Your task to perform on an android device: Clear the shopping cart on amazon.com. Add usb-c to the cart on amazon.com, then select checkout. Image 0: 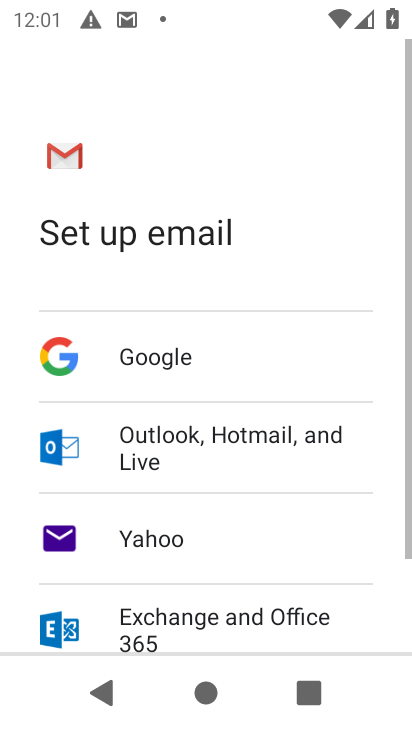
Step 0: press home button
Your task to perform on an android device: Clear the shopping cart on amazon.com. Add usb-c to the cart on amazon.com, then select checkout. Image 1: 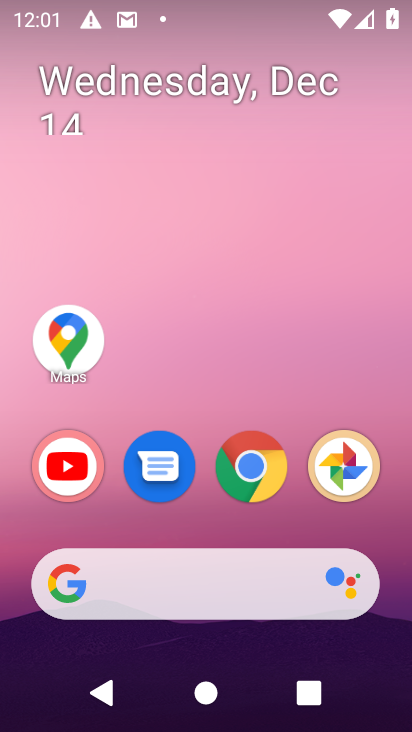
Step 1: drag from (165, 216) to (152, 43)
Your task to perform on an android device: Clear the shopping cart on amazon.com. Add usb-c to the cart on amazon.com, then select checkout. Image 2: 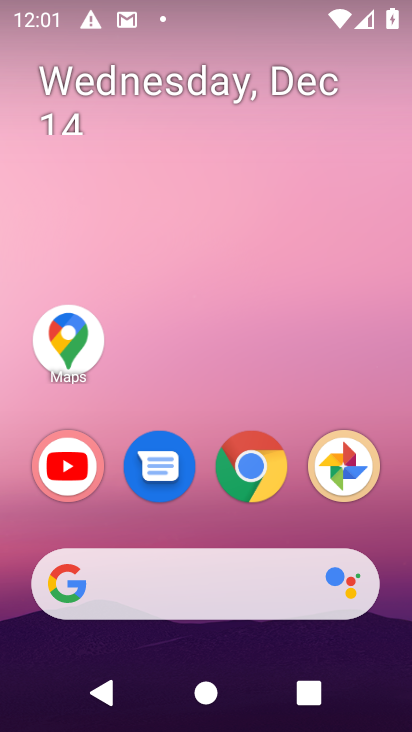
Step 2: drag from (201, 512) to (182, 218)
Your task to perform on an android device: Clear the shopping cart on amazon.com. Add usb-c to the cart on amazon.com, then select checkout. Image 3: 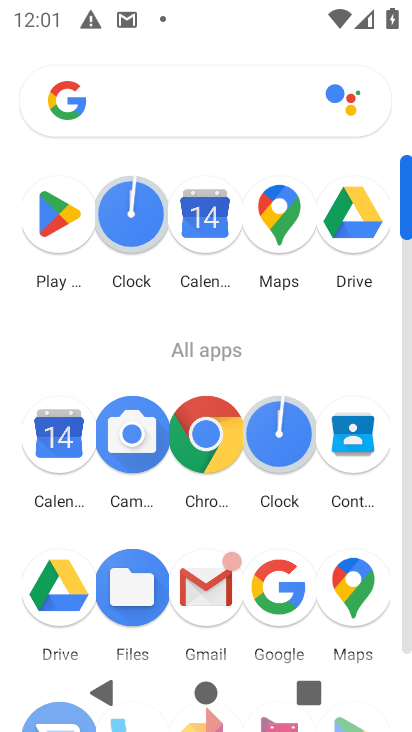
Step 3: click (285, 594)
Your task to perform on an android device: Clear the shopping cart on amazon.com. Add usb-c to the cart on amazon.com, then select checkout. Image 4: 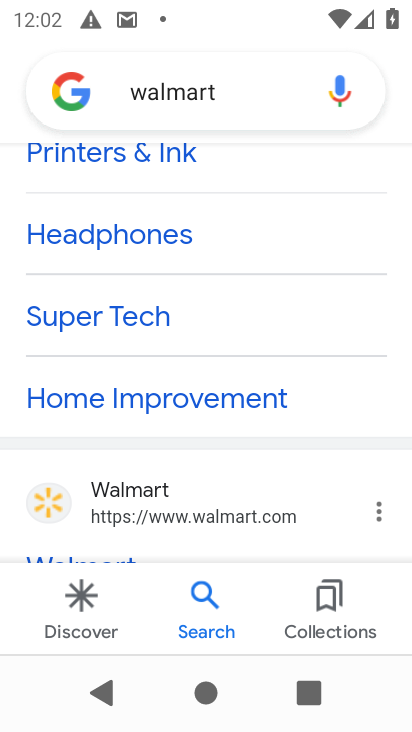
Step 4: click (239, 99)
Your task to perform on an android device: Clear the shopping cart on amazon.com. Add usb-c to the cart on amazon.com, then select checkout. Image 5: 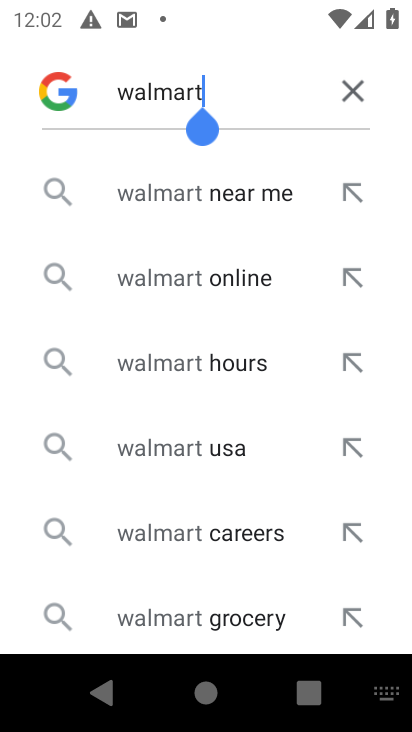
Step 5: click (353, 87)
Your task to perform on an android device: Clear the shopping cart on amazon.com. Add usb-c to the cart on amazon.com, then select checkout. Image 6: 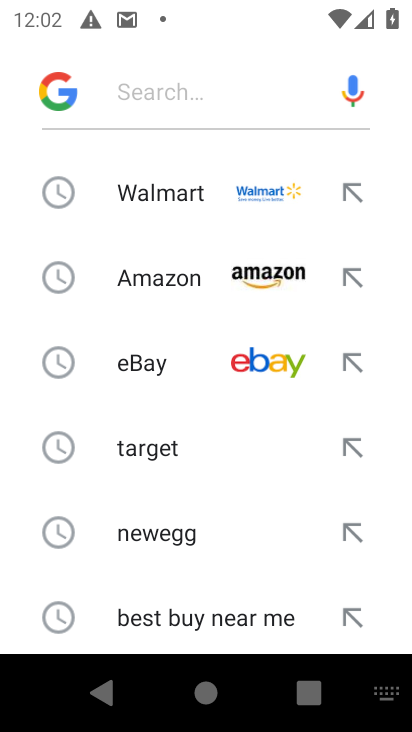
Step 6: click (216, 279)
Your task to perform on an android device: Clear the shopping cart on amazon.com. Add usb-c to the cart on amazon.com, then select checkout. Image 7: 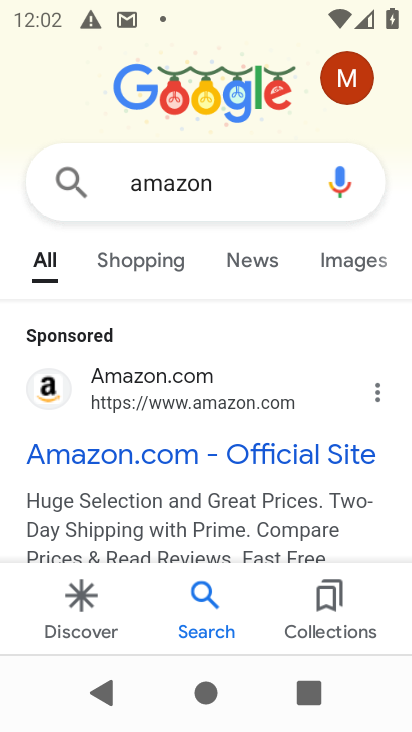
Step 7: click (141, 394)
Your task to perform on an android device: Clear the shopping cart on amazon.com. Add usb-c to the cart on amazon.com, then select checkout. Image 8: 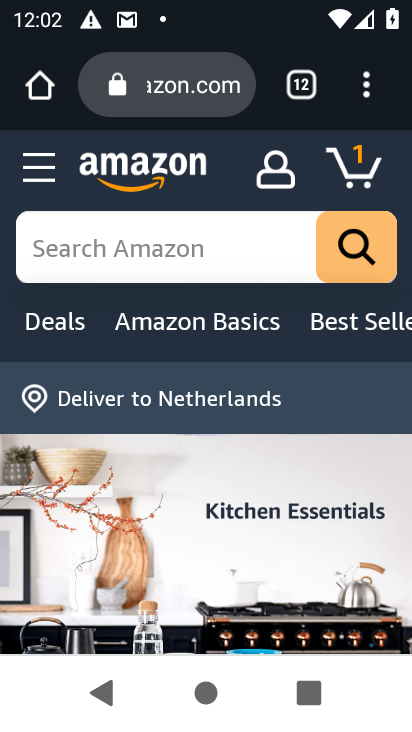
Step 8: click (273, 235)
Your task to perform on an android device: Clear the shopping cart on amazon.com. Add usb-c to the cart on amazon.com, then select checkout. Image 9: 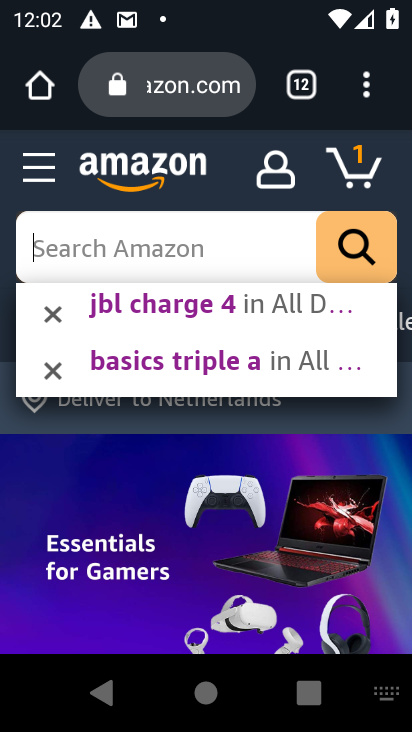
Step 9: type "usb-c "
Your task to perform on an android device: Clear the shopping cart on amazon.com. Add usb-c to the cart on amazon.com, then select checkout. Image 10: 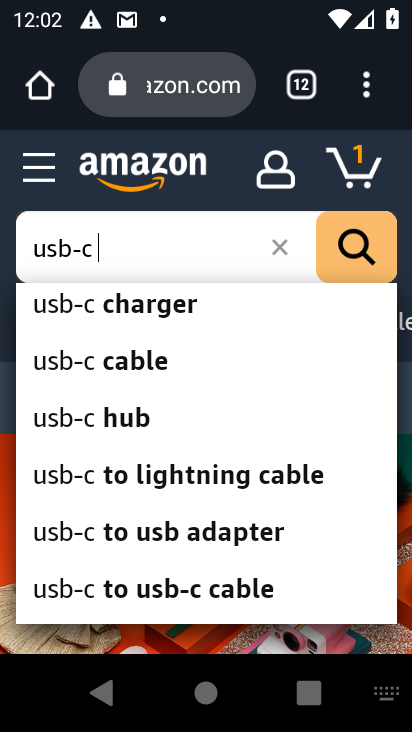
Step 10: click (105, 308)
Your task to perform on an android device: Clear the shopping cart on amazon.com. Add usb-c to the cart on amazon.com, then select checkout. Image 11: 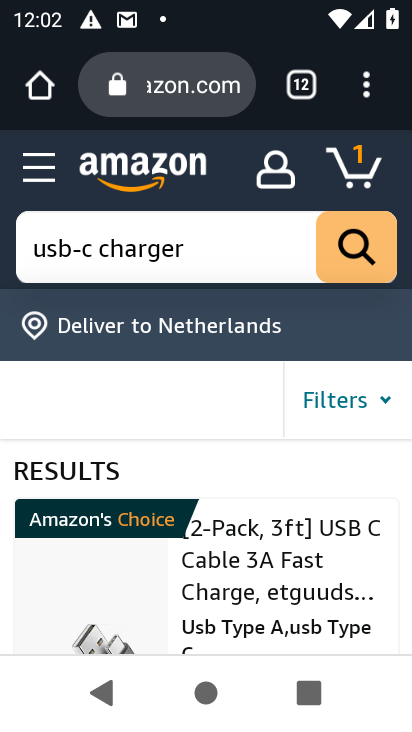
Step 11: drag from (287, 579) to (249, 315)
Your task to perform on an android device: Clear the shopping cart on amazon.com. Add usb-c to the cart on amazon.com, then select checkout. Image 12: 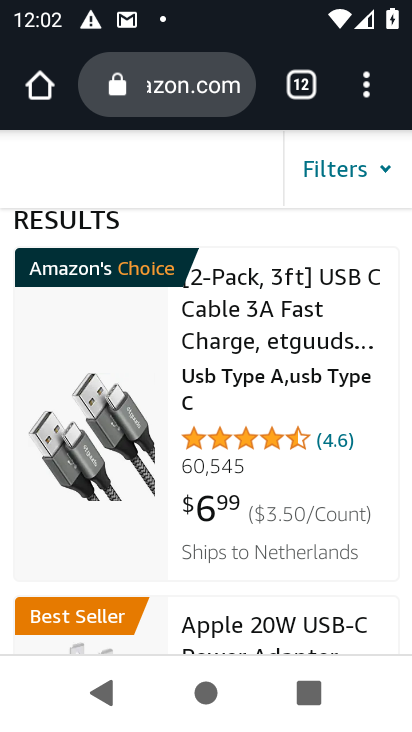
Step 12: click (223, 387)
Your task to perform on an android device: Clear the shopping cart on amazon.com. Add usb-c to the cart on amazon.com, then select checkout. Image 13: 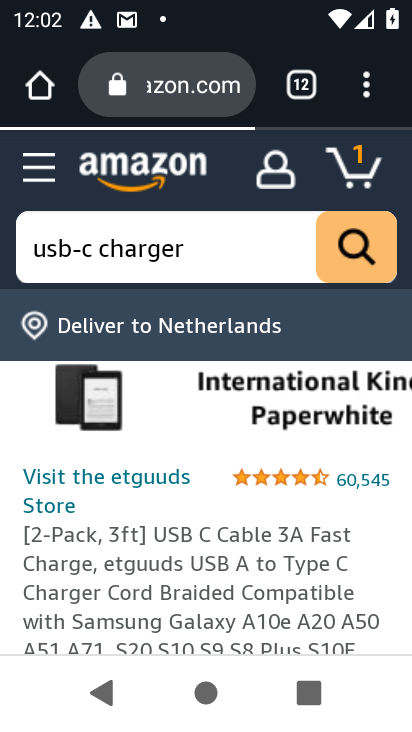
Step 13: drag from (210, 570) to (217, 417)
Your task to perform on an android device: Clear the shopping cart on amazon.com. Add usb-c to the cart on amazon.com, then select checkout. Image 14: 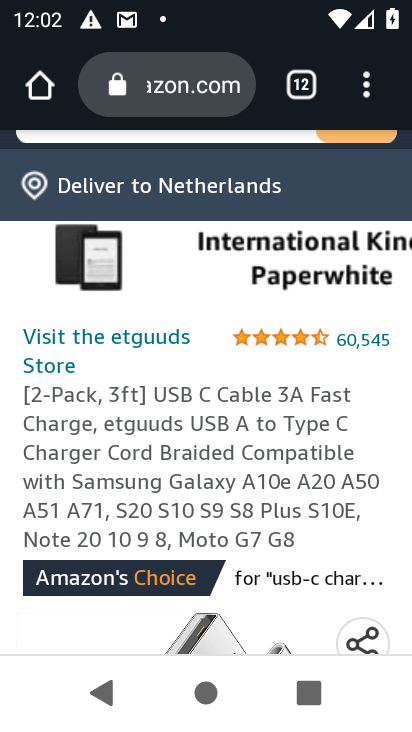
Step 14: click (250, 386)
Your task to perform on an android device: Clear the shopping cart on amazon.com. Add usb-c to the cart on amazon.com, then select checkout. Image 15: 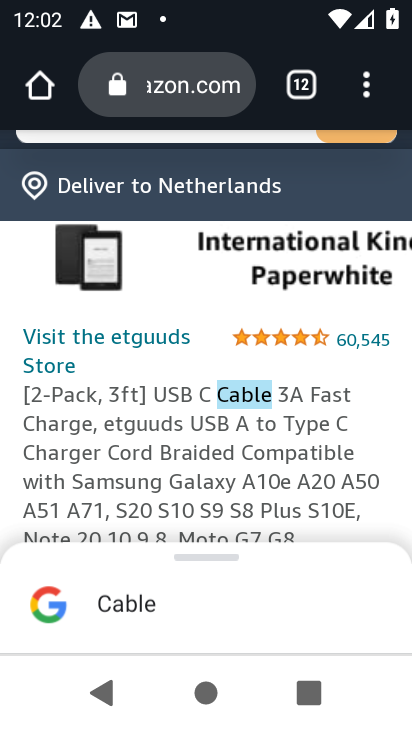
Step 15: click (217, 491)
Your task to perform on an android device: Clear the shopping cart on amazon.com. Add usb-c to the cart on amazon.com, then select checkout. Image 16: 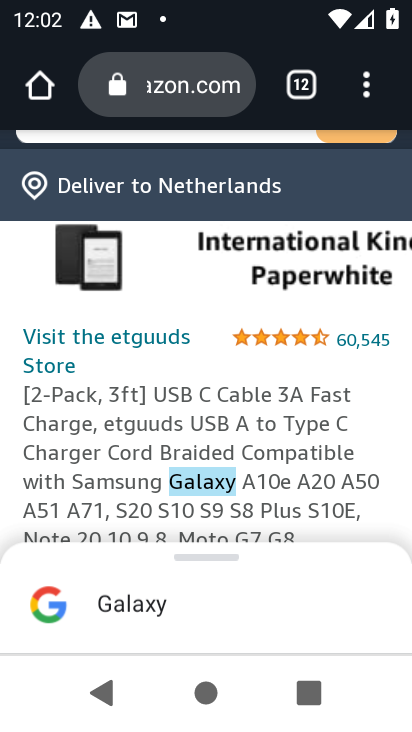
Step 16: drag from (137, 512) to (134, 333)
Your task to perform on an android device: Clear the shopping cart on amazon.com. Add usb-c to the cart on amazon.com, then select checkout. Image 17: 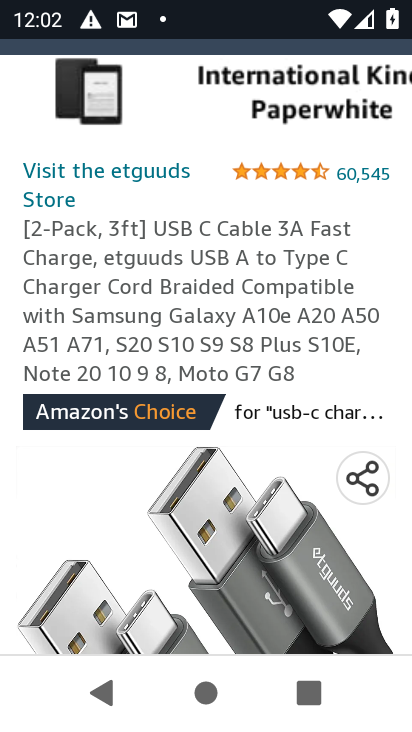
Step 17: drag from (189, 567) to (206, 296)
Your task to perform on an android device: Clear the shopping cart on amazon.com. Add usb-c to the cart on amazon.com, then select checkout. Image 18: 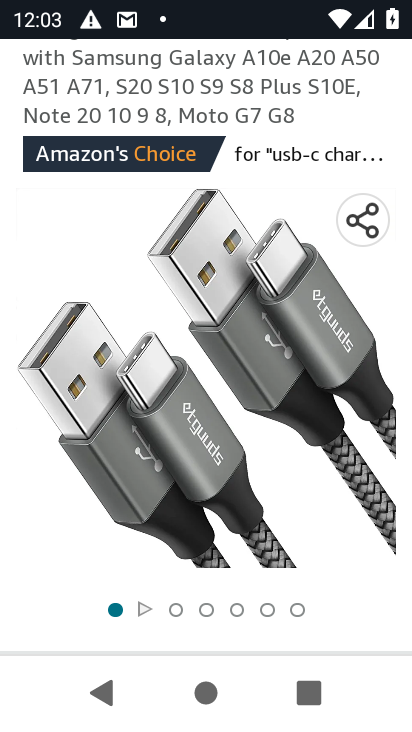
Step 18: drag from (165, 532) to (160, 285)
Your task to perform on an android device: Clear the shopping cart on amazon.com. Add usb-c to the cart on amazon.com, then select checkout. Image 19: 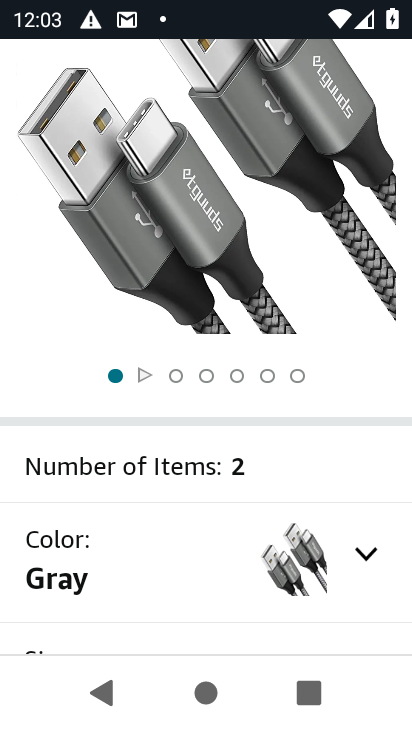
Step 19: drag from (161, 422) to (169, 273)
Your task to perform on an android device: Clear the shopping cart on amazon.com. Add usb-c to the cart on amazon.com, then select checkout. Image 20: 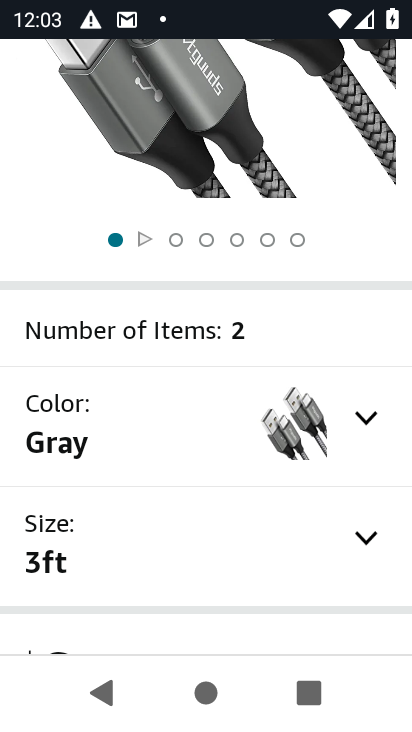
Step 20: drag from (169, 604) to (139, 379)
Your task to perform on an android device: Clear the shopping cart on amazon.com. Add usb-c to the cart on amazon.com, then select checkout. Image 21: 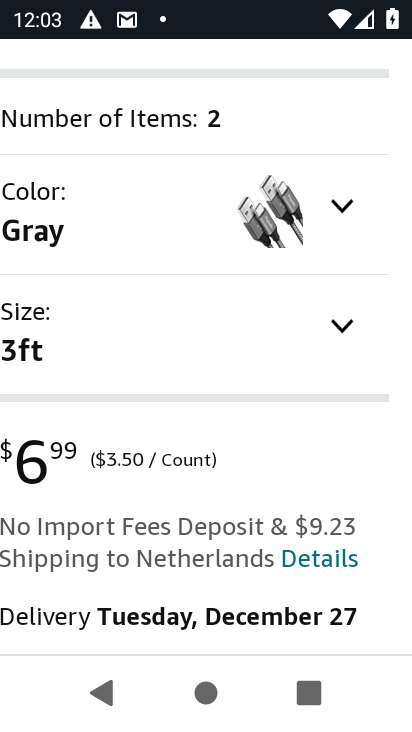
Step 21: drag from (149, 592) to (129, 339)
Your task to perform on an android device: Clear the shopping cart on amazon.com. Add usb-c to the cart on amazon.com, then select checkout. Image 22: 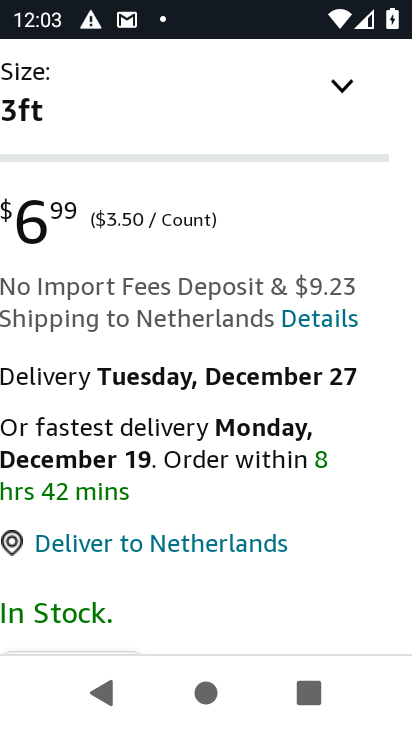
Step 22: drag from (129, 603) to (136, 355)
Your task to perform on an android device: Clear the shopping cart on amazon.com. Add usb-c to the cart on amazon.com, then select checkout. Image 23: 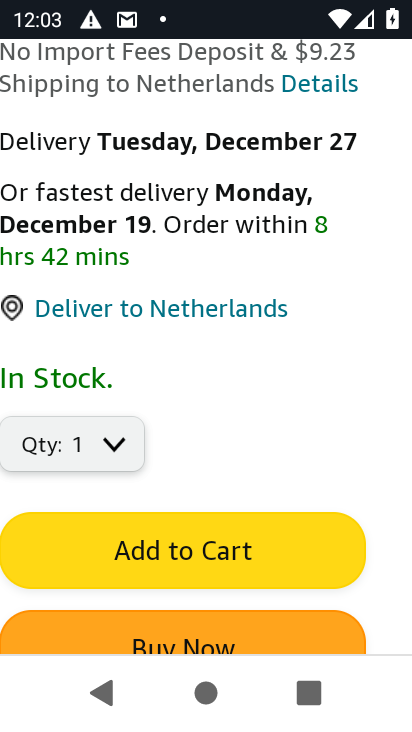
Step 23: click (164, 554)
Your task to perform on an android device: Clear the shopping cart on amazon.com. Add usb-c to the cart on amazon.com, then select checkout. Image 24: 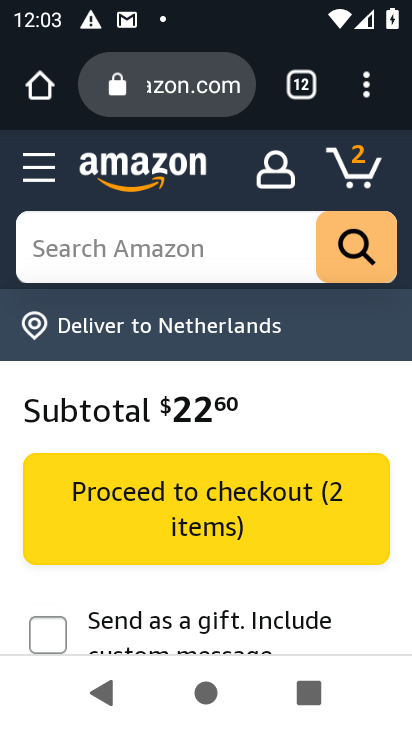
Step 24: click (351, 163)
Your task to perform on an android device: Clear the shopping cart on amazon.com. Add usb-c to the cart on amazon.com, then select checkout. Image 25: 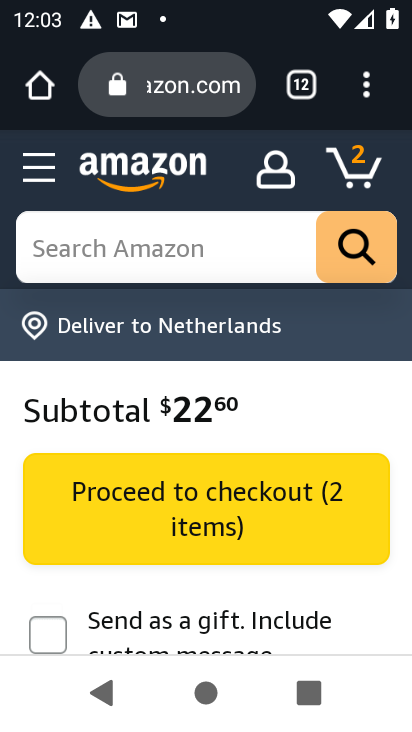
Step 25: drag from (197, 573) to (241, 295)
Your task to perform on an android device: Clear the shopping cart on amazon.com. Add usb-c to the cart on amazon.com, then select checkout. Image 26: 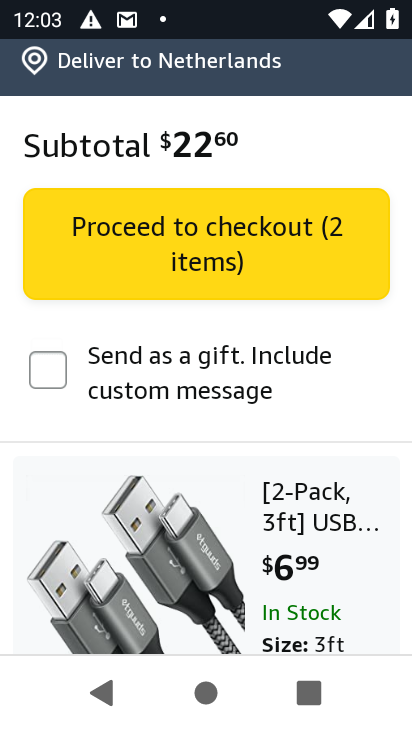
Step 26: click (225, 247)
Your task to perform on an android device: Clear the shopping cart on amazon.com. Add usb-c to the cart on amazon.com, then select checkout. Image 27: 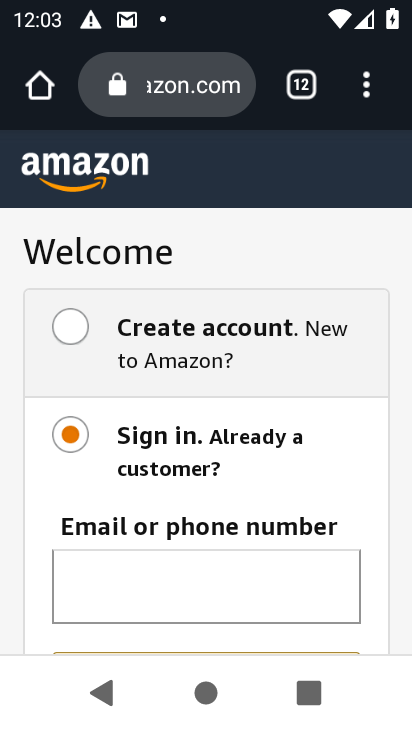
Step 27: task complete